Your task to perform on an android device: add a label to a message in the gmail app Image 0: 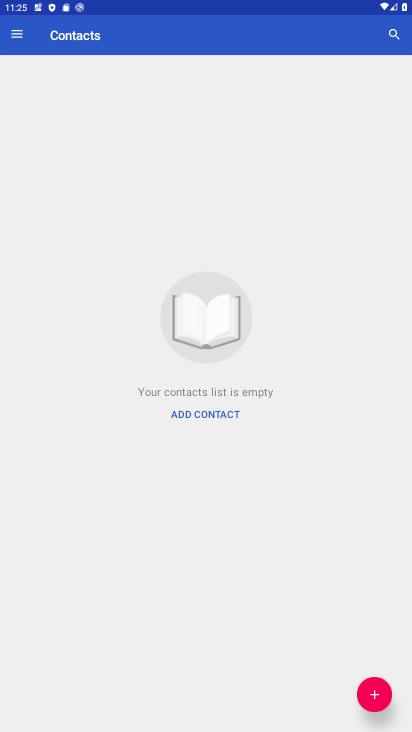
Step 0: press home button
Your task to perform on an android device: add a label to a message in the gmail app Image 1: 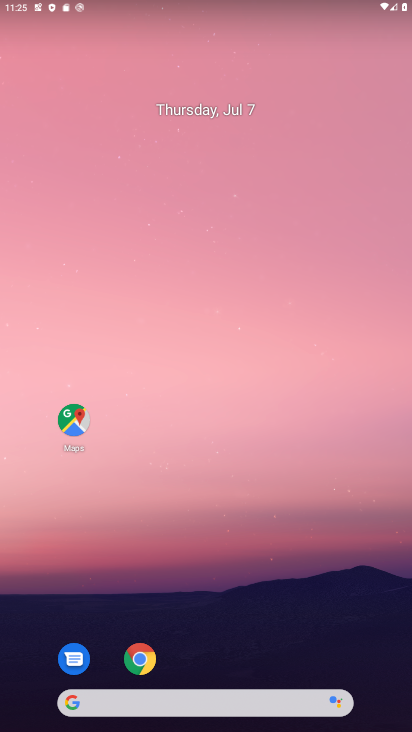
Step 1: drag from (193, 672) to (273, 0)
Your task to perform on an android device: add a label to a message in the gmail app Image 2: 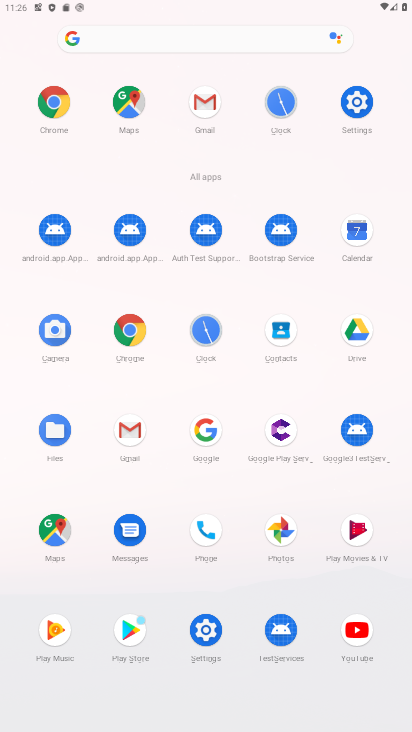
Step 2: click (135, 438)
Your task to perform on an android device: add a label to a message in the gmail app Image 3: 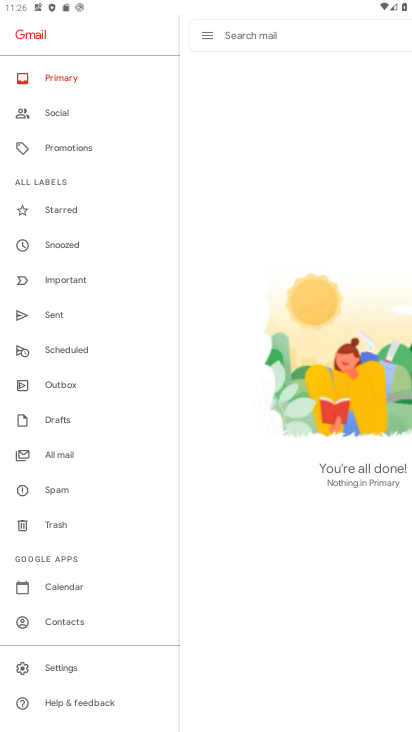
Step 3: task complete